Your task to perform on an android device: What is the capital of Mexico? Image 0: 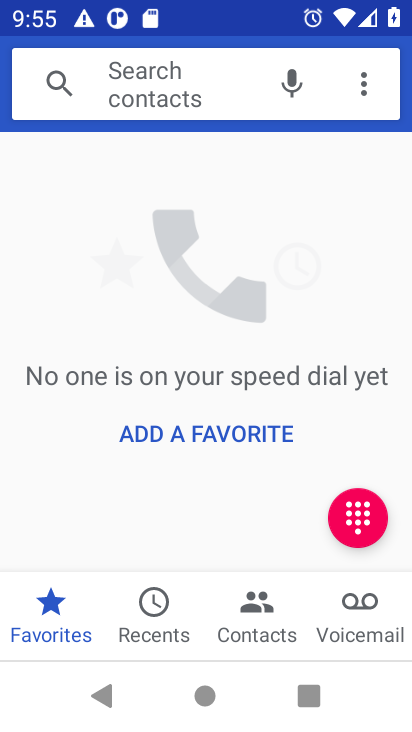
Step 0: press home button
Your task to perform on an android device: What is the capital of Mexico? Image 1: 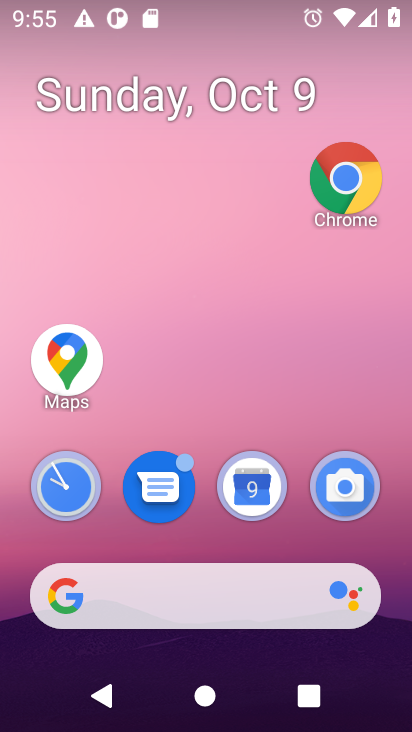
Step 1: drag from (185, 551) to (312, 207)
Your task to perform on an android device: What is the capital of Mexico? Image 2: 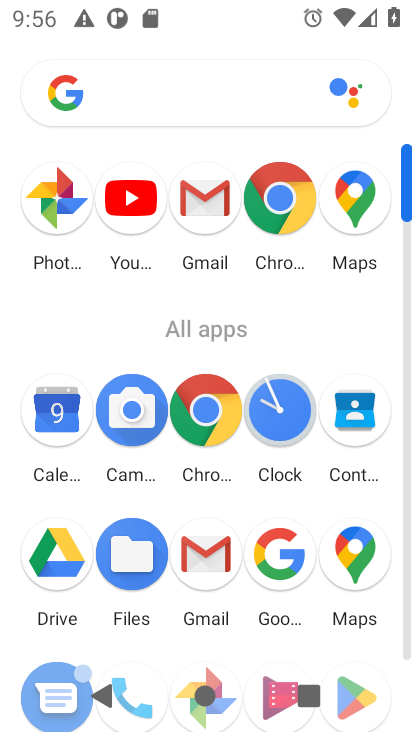
Step 2: drag from (242, 436) to (336, 187)
Your task to perform on an android device: What is the capital of Mexico? Image 3: 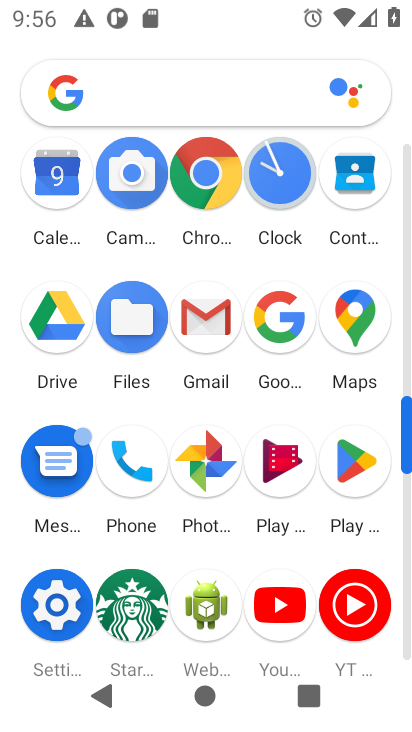
Step 3: click (294, 333)
Your task to perform on an android device: What is the capital of Mexico? Image 4: 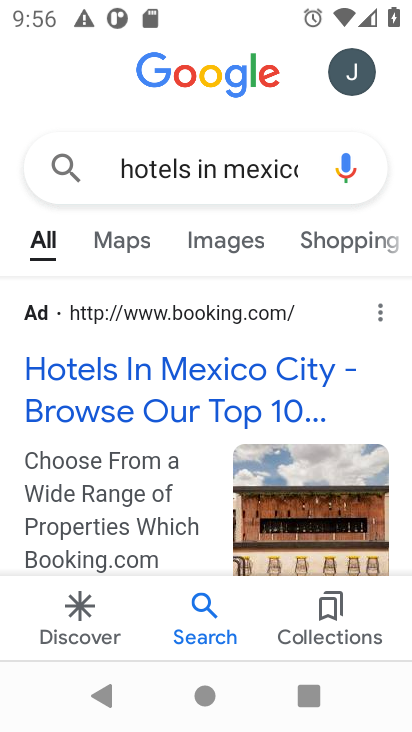
Step 4: click (328, 186)
Your task to perform on an android device: What is the capital of Mexico? Image 5: 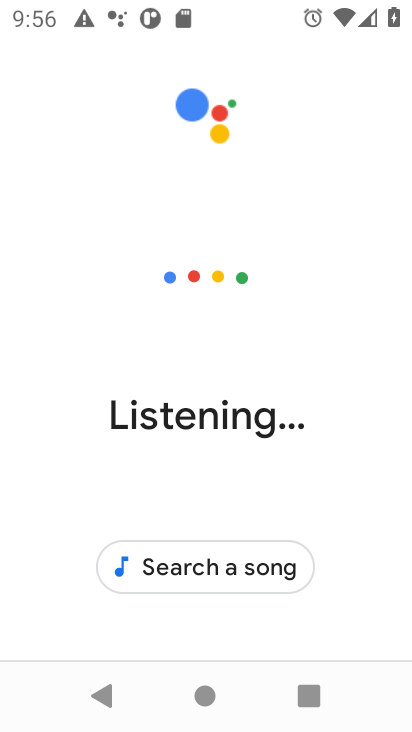
Step 5: press back button
Your task to perform on an android device: What is the capital of Mexico? Image 6: 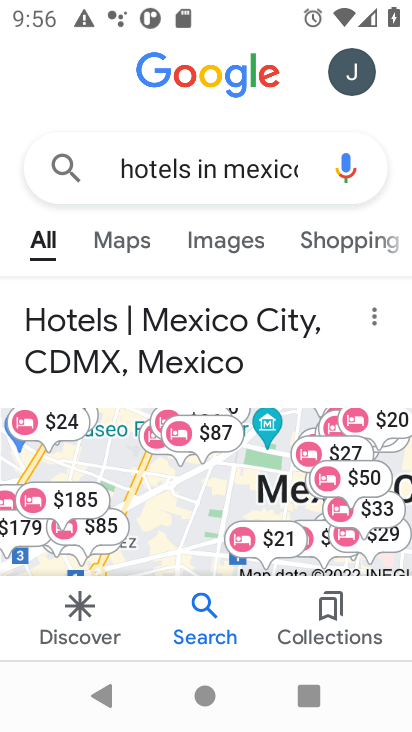
Step 6: click (277, 184)
Your task to perform on an android device: What is the capital of Mexico? Image 7: 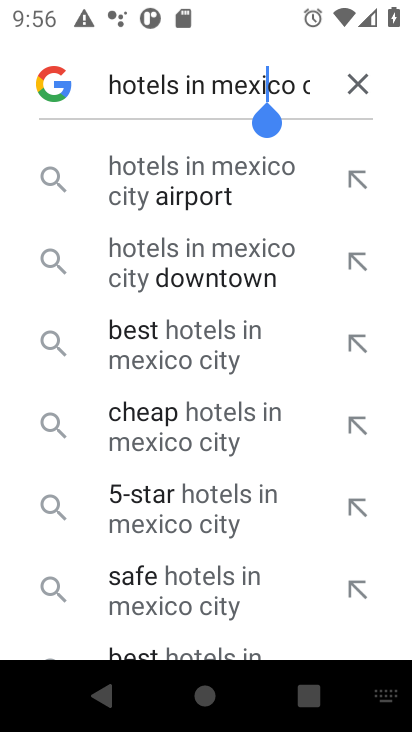
Step 7: click (361, 85)
Your task to perform on an android device: What is the capital of Mexico? Image 8: 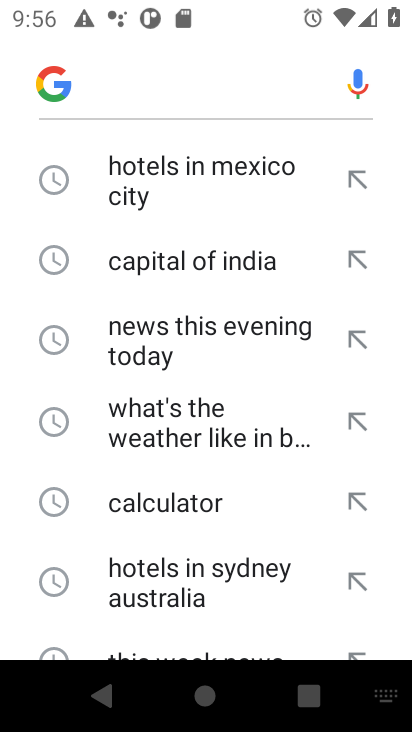
Step 8: type "capital of Mexico"
Your task to perform on an android device: What is the capital of Mexico? Image 9: 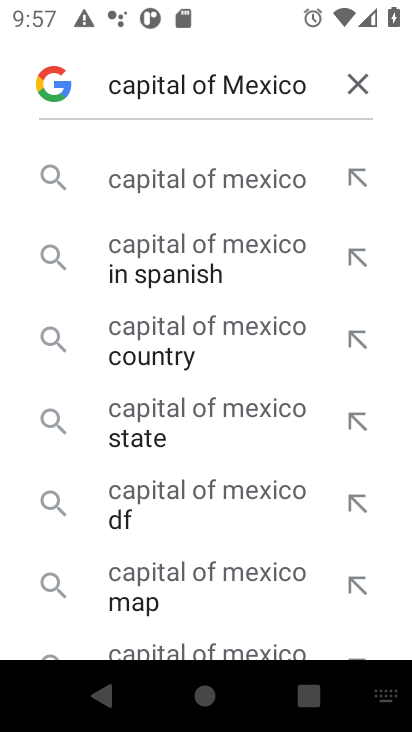
Step 9: click (262, 188)
Your task to perform on an android device: What is the capital of Mexico? Image 10: 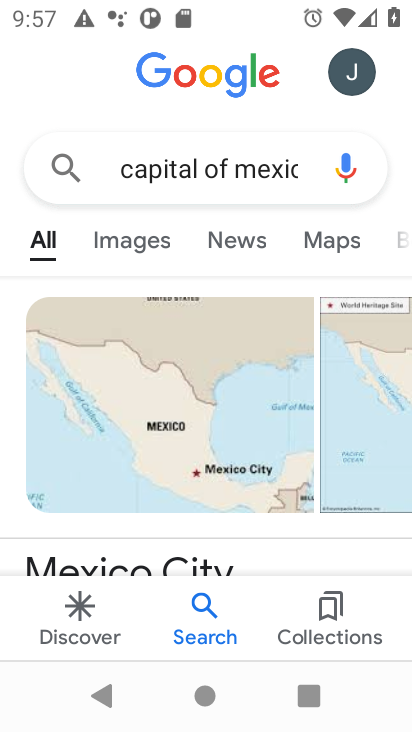
Step 10: task complete